Your task to perform on an android device: Show me productivity apps on the Play Store Image 0: 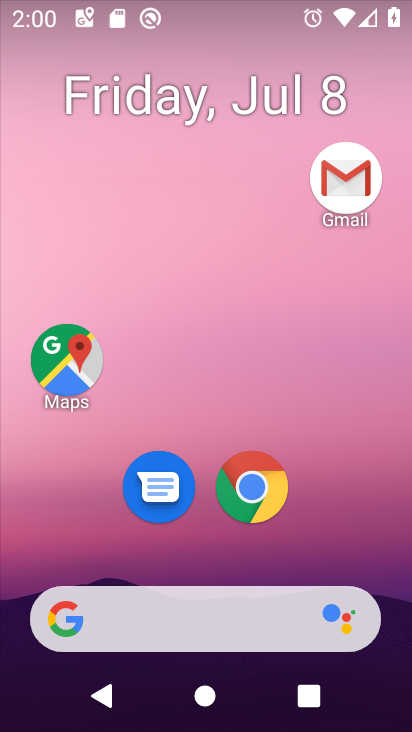
Step 0: drag from (315, 535) to (367, 240)
Your task to perform on an android device: Show me productivity apps on the Play Store Image 1: 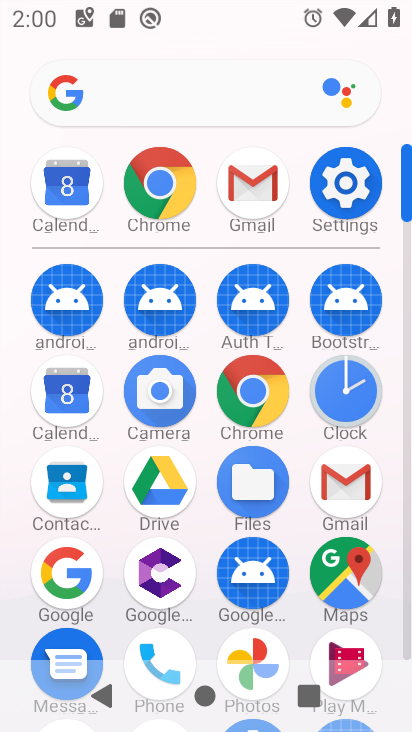
Step 1: drag from (392, 490) to (374, 237)
Your task to perform on an android device: Show me productivity apps on the Play Store Image 2: 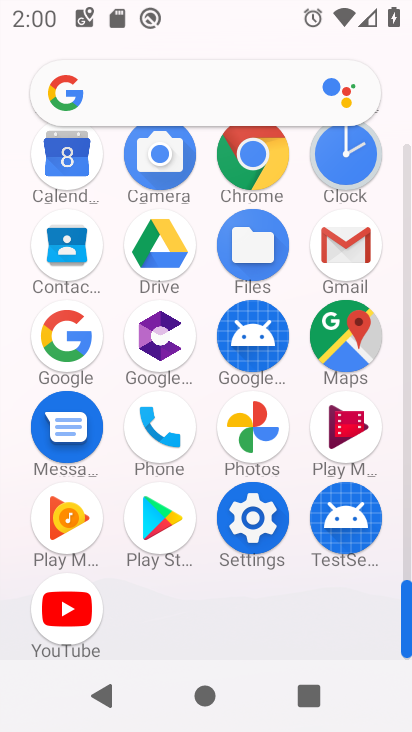
Step 2: click (172, 521)
Your task to perform on an android device: Show me productivity apps on the Play Store Image 3: 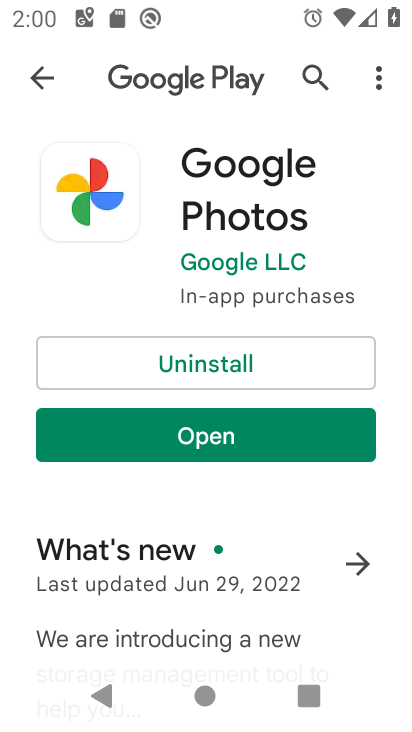
Step 3: press back button
Your task to perform on an android device: Show me productivity apps on the Play Store Image 4: 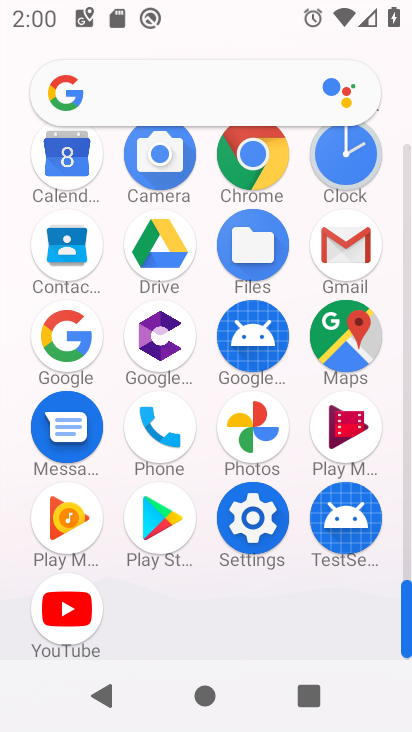
Step 4: click (165, 507)
Your task to perform on an android device: Show me productivity apps on the Play Store Image 5: 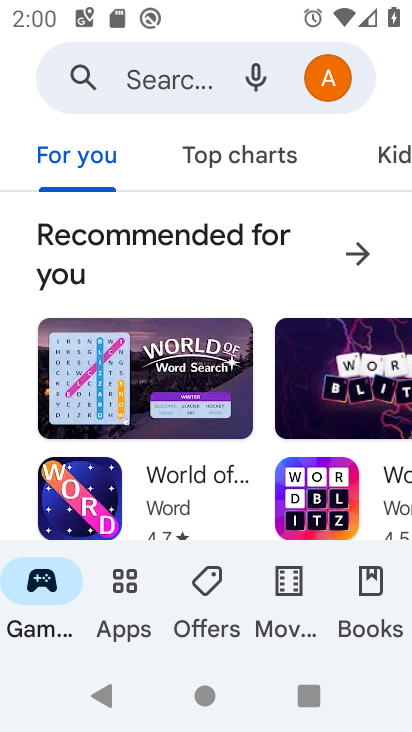
Step 5: click (120, 597)
Your task to perform on an android device: Show me productivity apps on the Play Store Image 6: 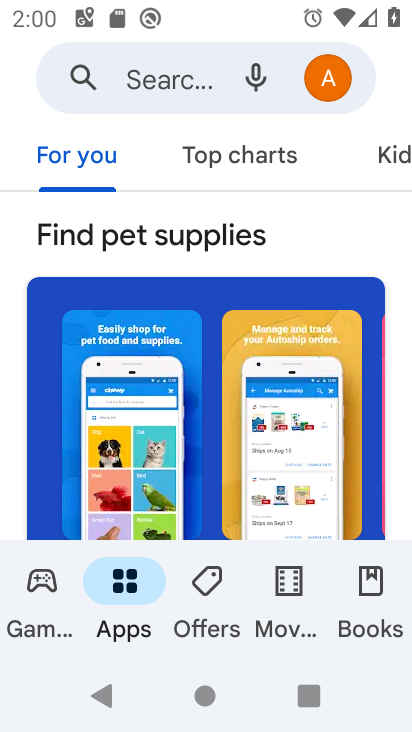
Step 6: task complete